Your task to perform on an android device: see tabs open on other devices in the chrome app Image 0: 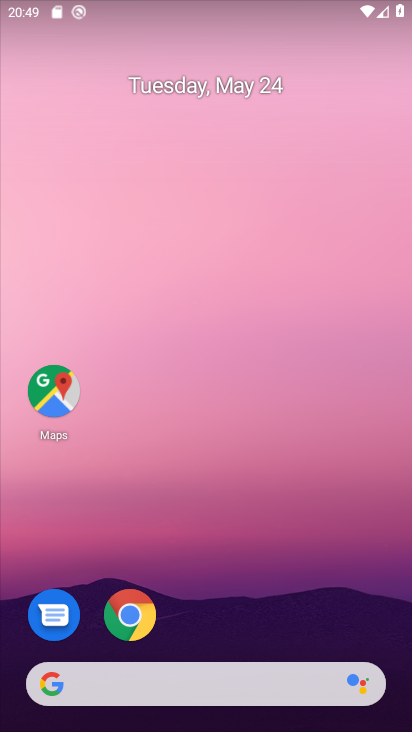
Step 0: drag from (222, 503) to (229, 232)
Your task to perform on an android device: see tabs open on other devices in the chrome app Image 1: 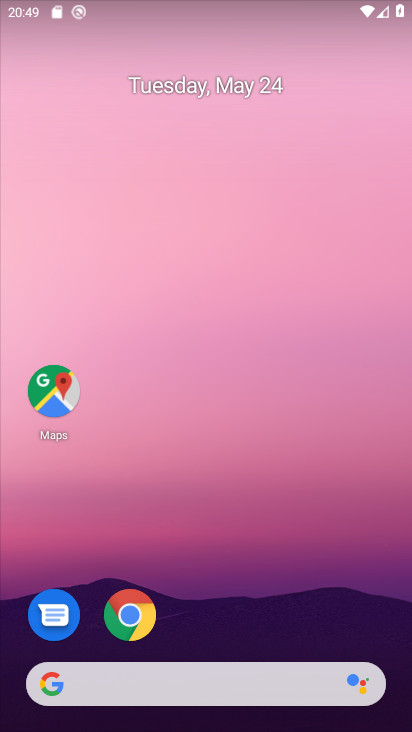
Step 1: drag from (279, 627) to (301, 131)
Your task to perform on an android device: see tabs open on other devices in the chrome app Image 2: 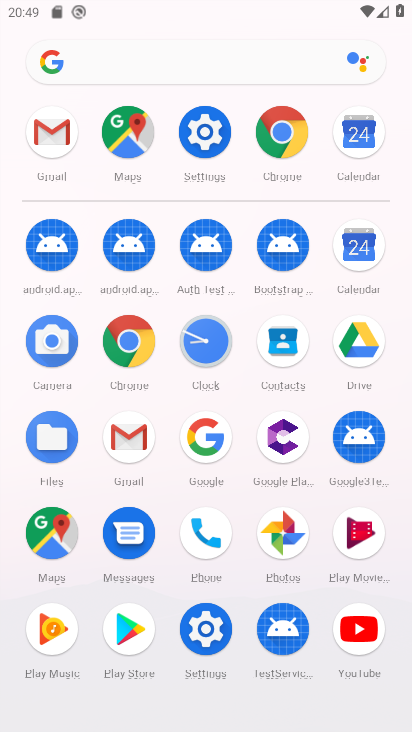
Step 2: click (131, 341)
Your task to perform on an android device: see tabs open on other devices in the chrome app Image 3: 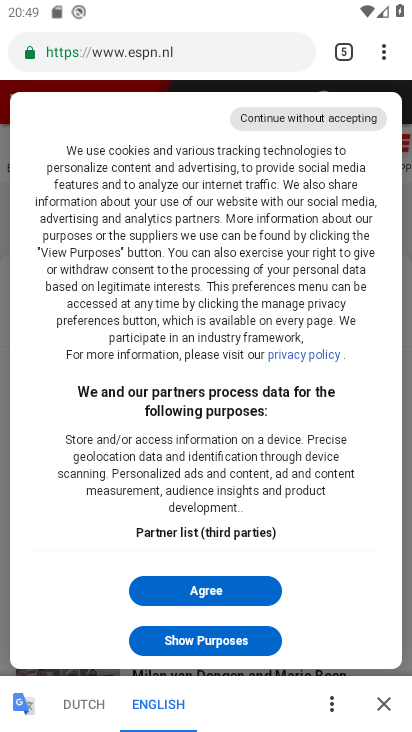
Step 3: click (390, 34)
Your task to perform on an android device: see tabs open on other devices in the chrome app Image 4: 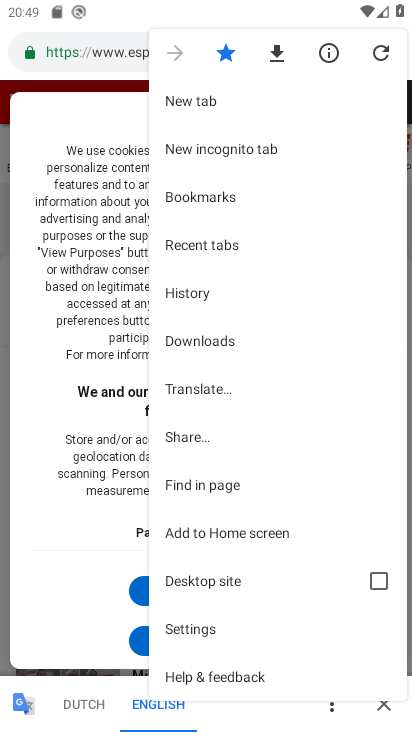
Step 4: click (249, 110)
Your task to perform on an android device: see tabs open on other devices in the chrome app Image 5: 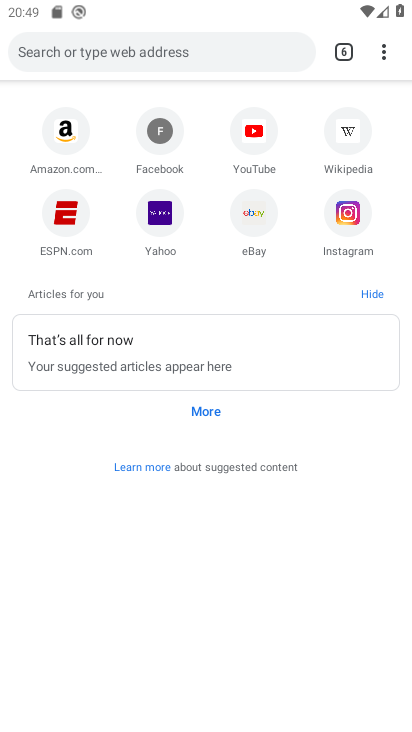
Step 5: task complete